Your task to perform on an android device: change the clock display to show seconds Image 0: 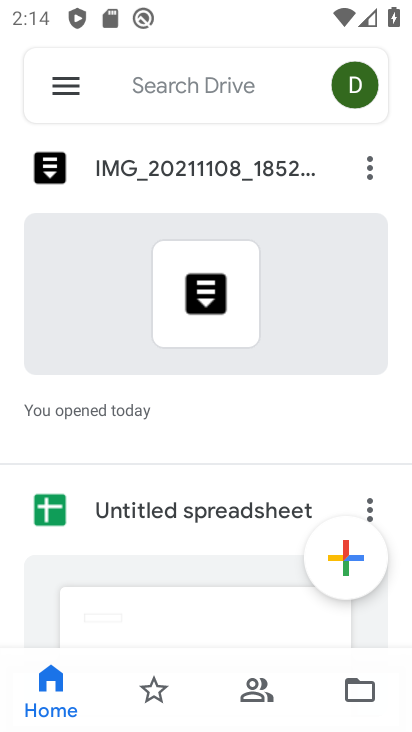
Step 0: press home button
Your task to perform on an android device: change the clock display to show seconds Image 1: 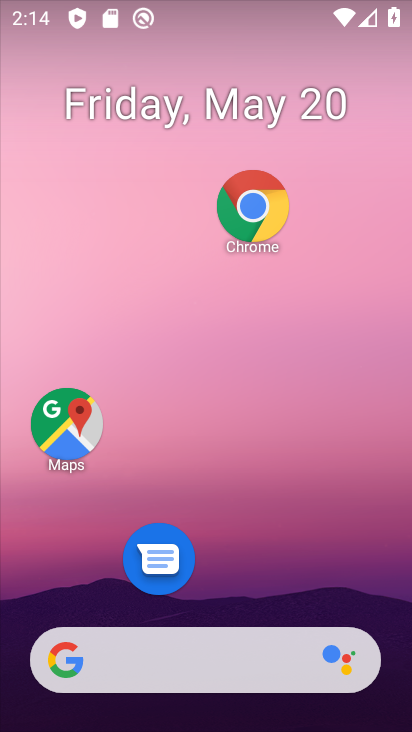
Step 1: drag from (223, 609) to (161, 26)
Your task to perform on an android device: change the clock display to show seconds Image 2: 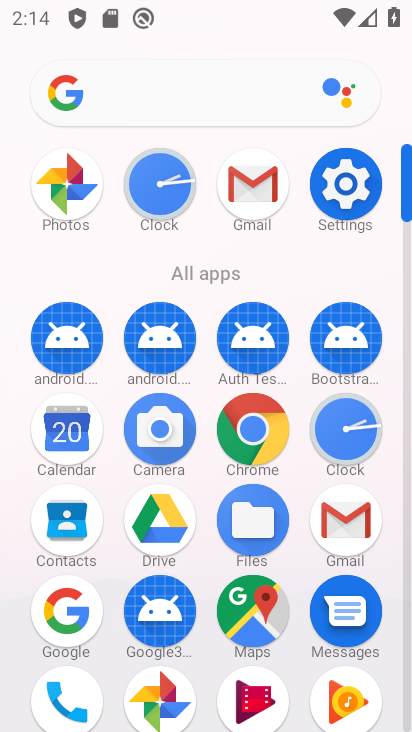
Step 2: click (332, 433)
Your task to perform on an android device: change the clock display to show seconds Image 3: 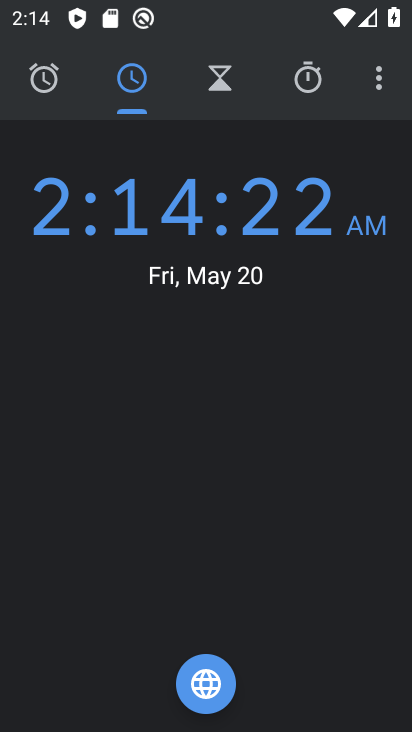
Step 3: click (375, 82)
Your task to perform on an android device: change the clock display to show seconds Image 4: 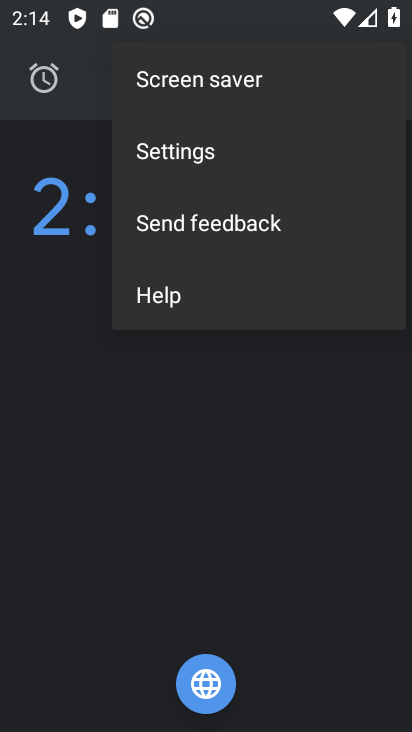
Step 4: click (185, 152)
Your task to perform on an android device: change the clock display to show seconds Image 5: 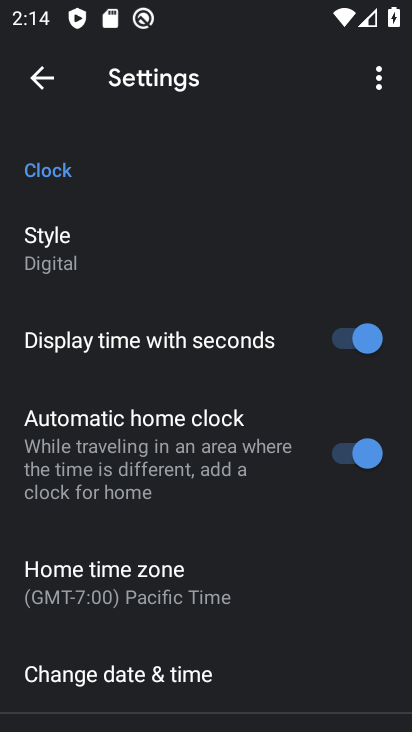
Step 5: click (360, 351)
Your task to perform on an android device: change the clock display to show seconds Image 6: 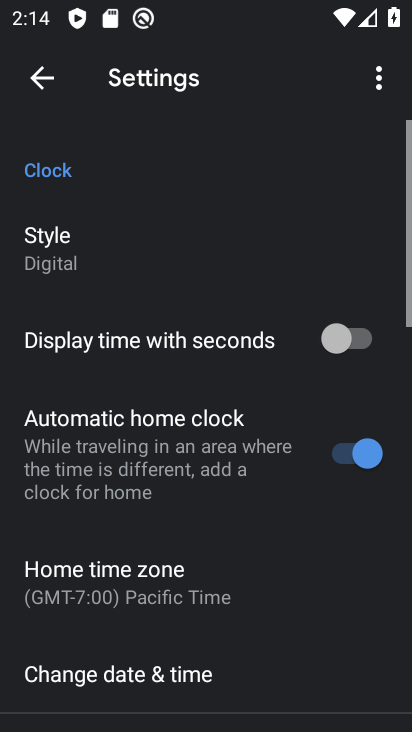
Step 6: task complete